Your task to perform on an android device: turn notification dots off Image 0: 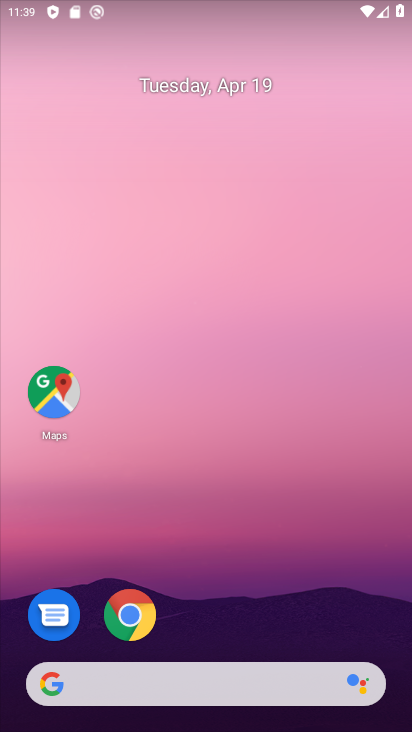
Step 0: drag from (229, 506) to (235, 199)
Your task to perform on an android device: turn notification dots off Image 1: 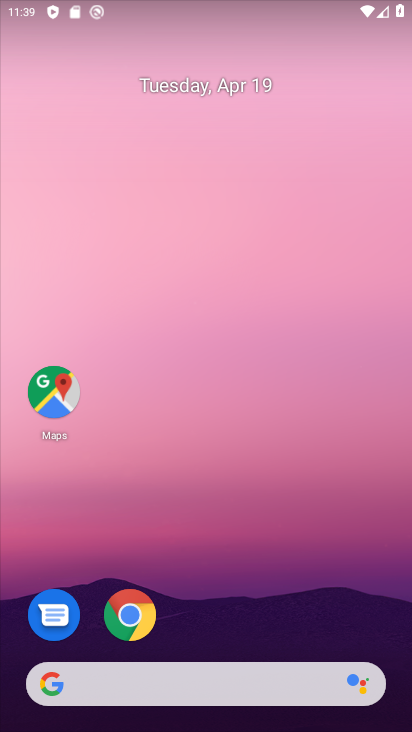
Step 1: drag from (223, 393) to (237, 12)
Your task to perform on an android device: turn notification dots off Image 2: 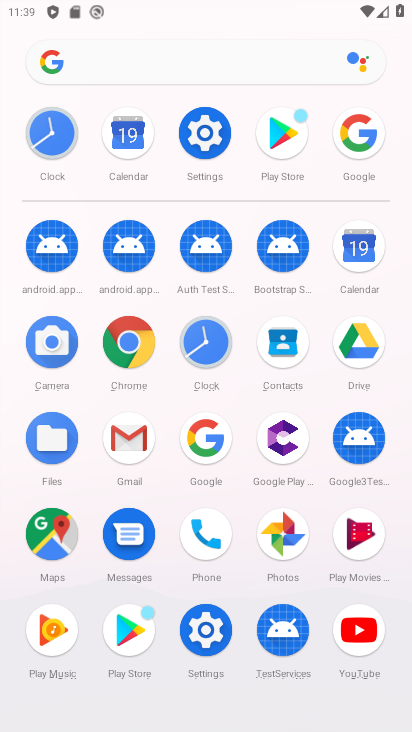
Step 2: click (207, 131)
Your task to perform on an android device: turn notification dots off Image 3: 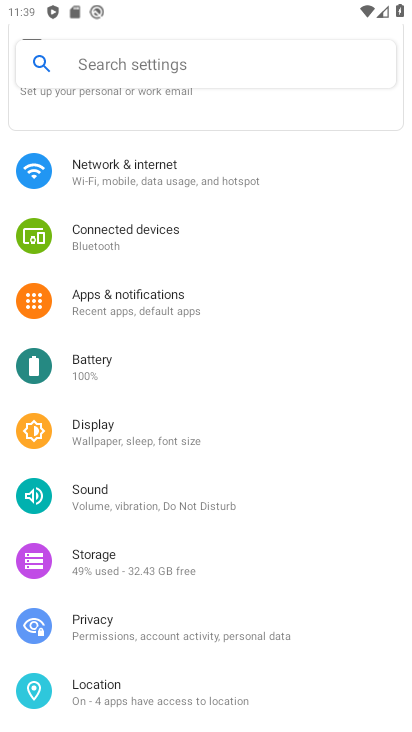
Step 3: click (135, 297)
Your task to perform on an android device: turn notification dots off Image 4: 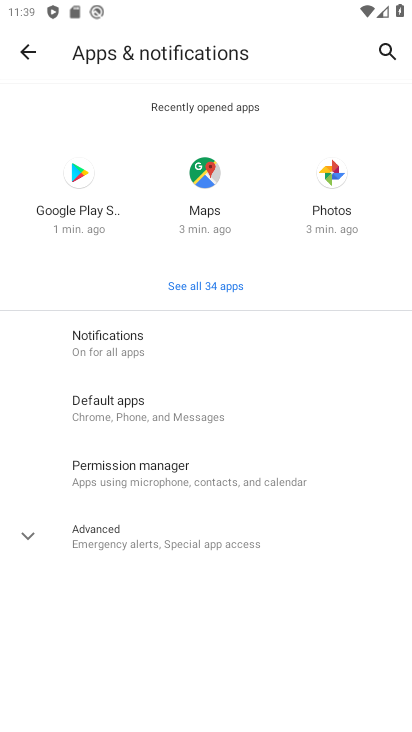
Step 4: click (158, 342)
Your task to perform on an android device: turn notification dots off Image 5: 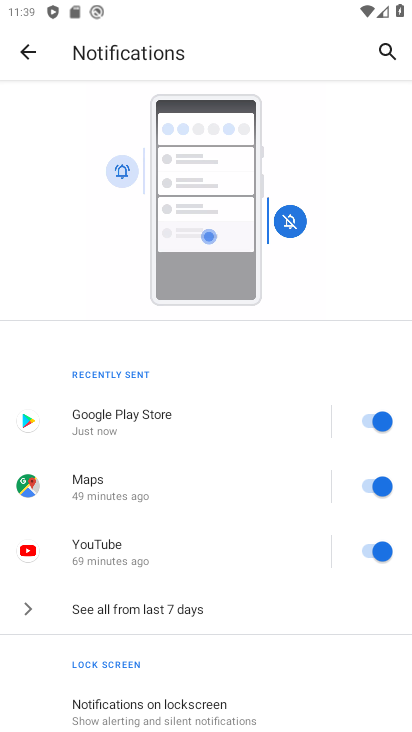
Step 5: drag from (235, 634) to (200, 323)
Your task to perform on an android device: turn notification dots off Image 6: 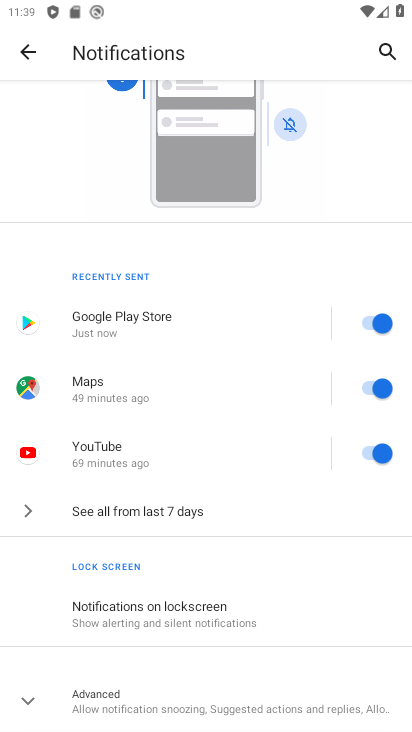
Step 6: click (97, 703)
Your task to perform on an android device: turn notification dots off Image 7: 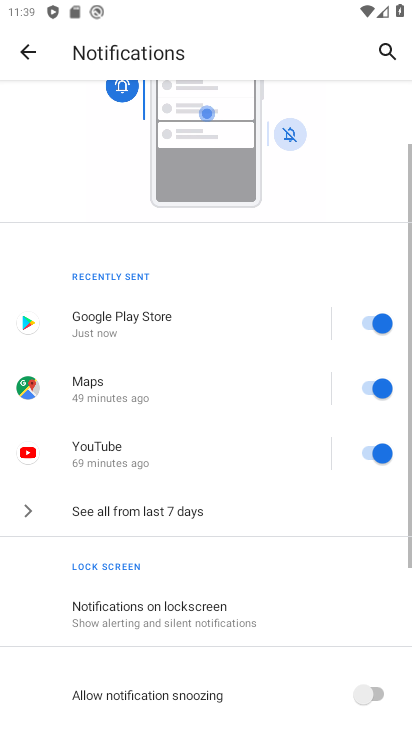
Step 7: drag from (260, 623) to (247, 260)
Your task to perform on an android device: turn notification dots off Image 8: 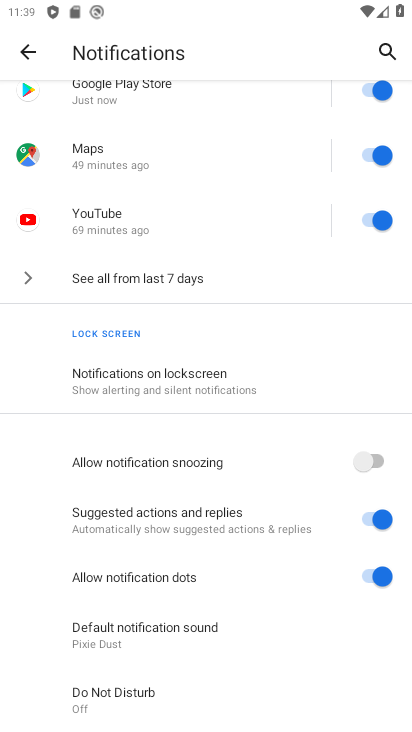
Step 8: click (376, 569)
Your task to perform on an android device: turn notification dots off Image 9: 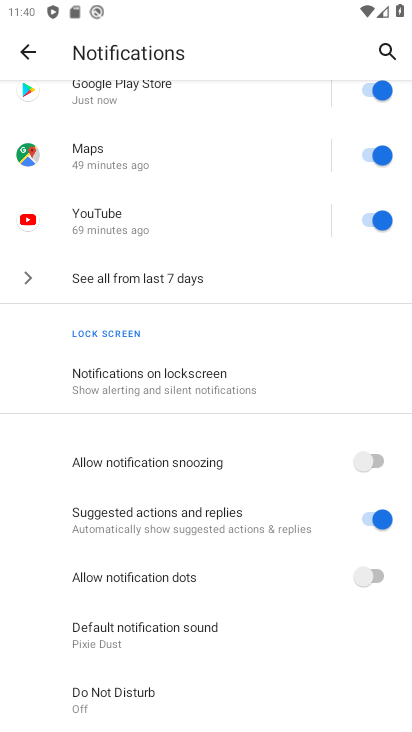
Step 9: task complete